Your task to perform on an android device: Open Yahoo.com Image 0: 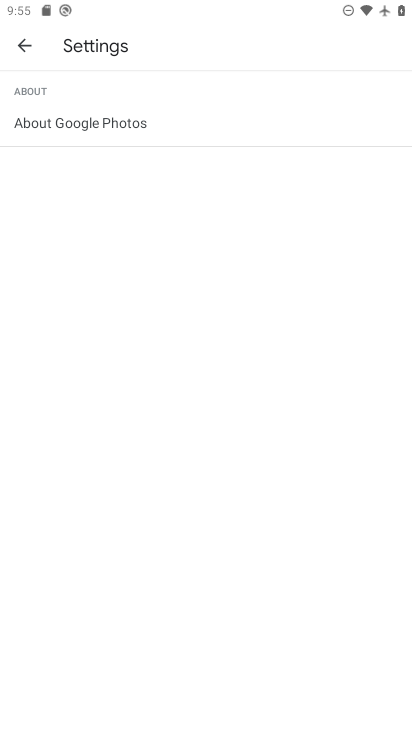
Step 0: press home button
Your task to perform on an android device: Open Yahoo.com Image 1: 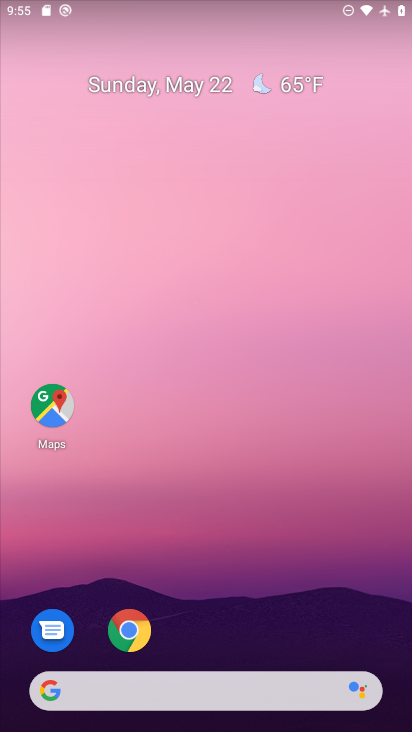
Step 1: click (135, 635)
Your task to perform on an android device: Open Yahoo.com Image 2: 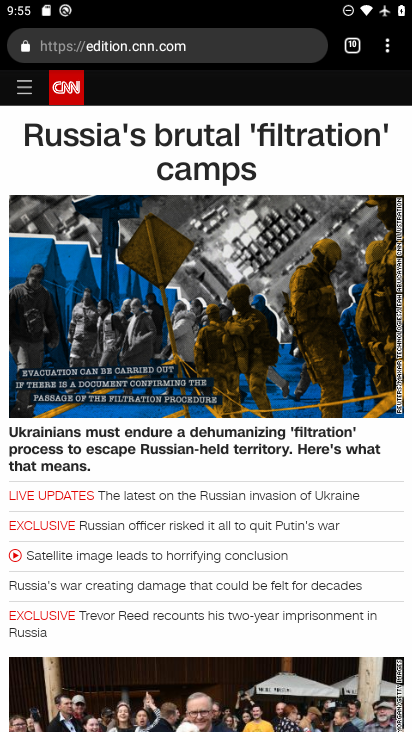
Step 2: drag from (388, 53) to (311, 82)
Your task to perform on an android device: Open Yahoo.com Image 3: 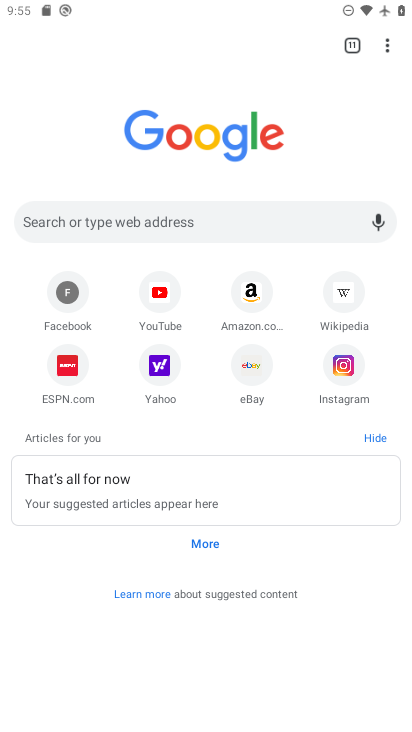
Step 3: click (168, 362)
Your task to perform on an android device: Open Yahoo.com Image 4: 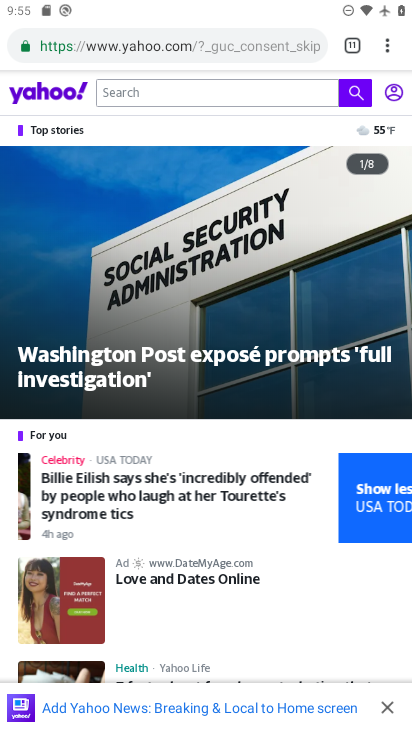
Step 4: task complete